Your task to perform on an android device: check battery use Image 0: 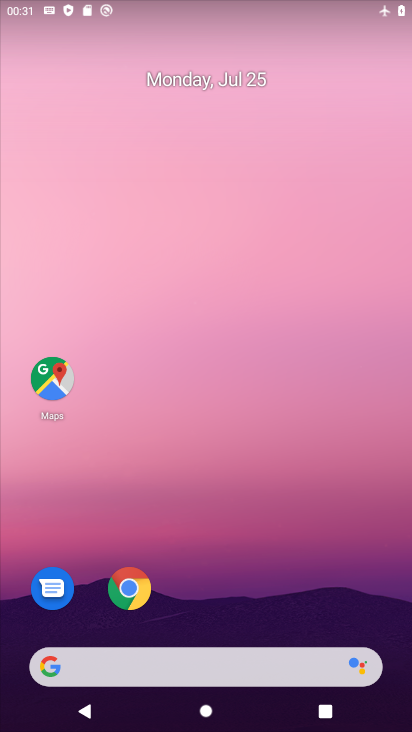
Step 0: drag from (240, 578) to (268, 352)
Your task to perform on an android device: check battery use Image 1: 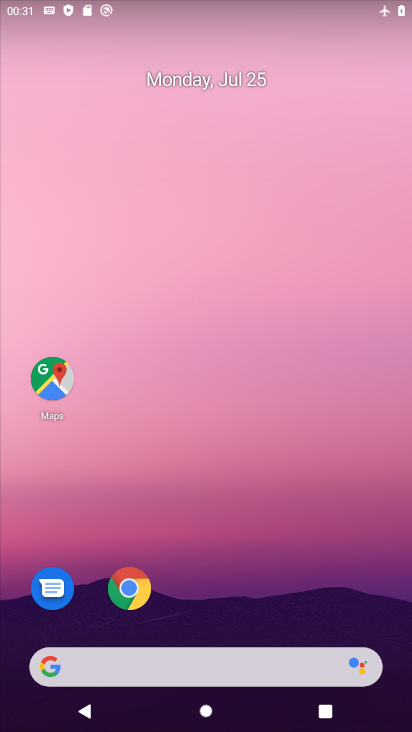
Step 1: drag from (204, 586) to (304, 2)
Your task to perform on an android device: check battery use Image 2: 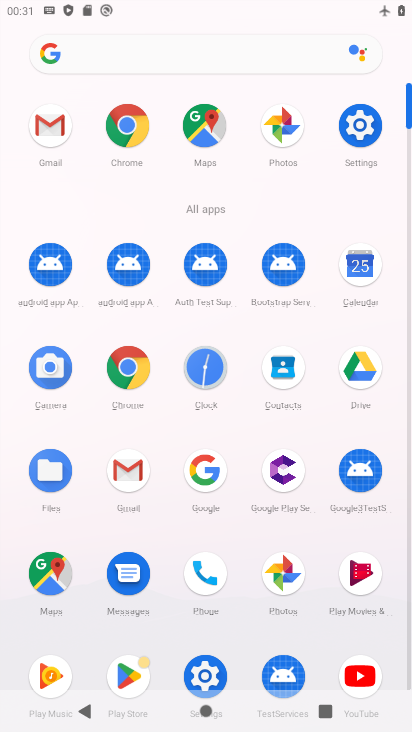
Step 2: click (369, 147)
Your task to perform on an android device: check battery use Image 3: 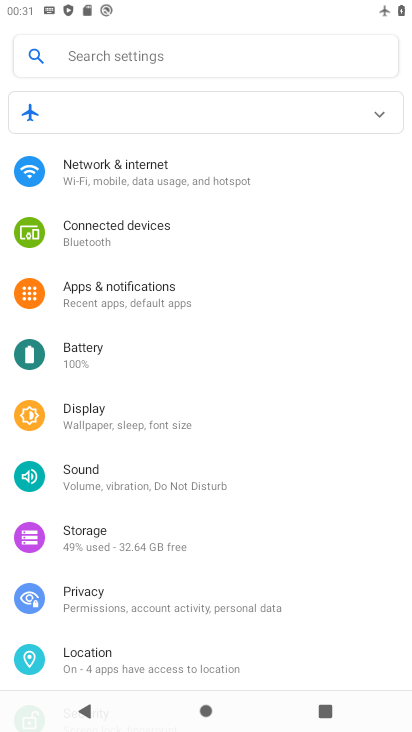
Step 3: click (89, 363)
Your task to perform on an android device: check battery use Image 4: 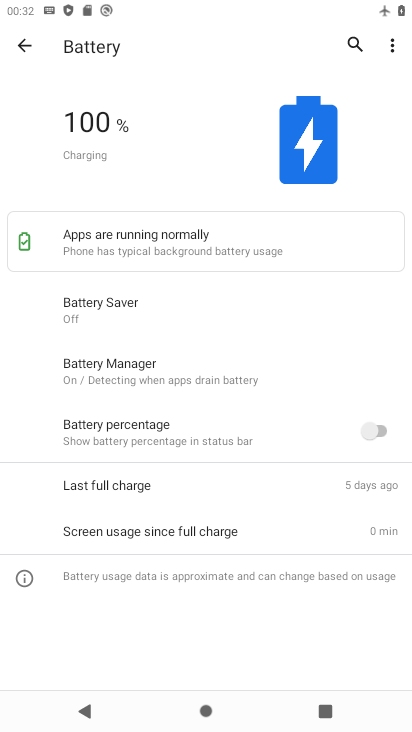
Step 4: click (396, 46)
Your task to perform on an android device: check battery use Image 5: 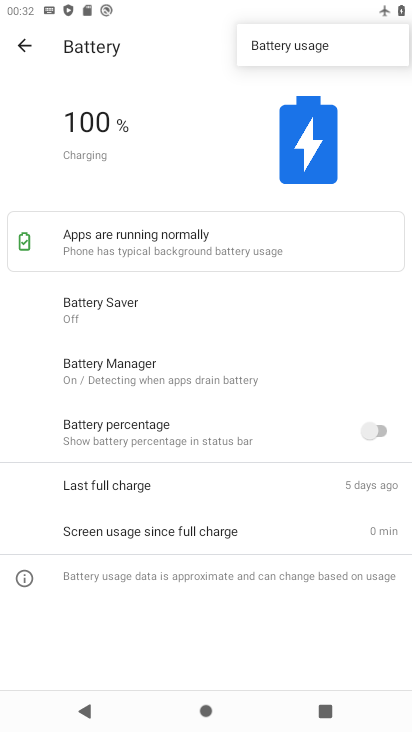
Step 5: click (316, 46)
Your task to perform on an android device: check battery use Image 6: 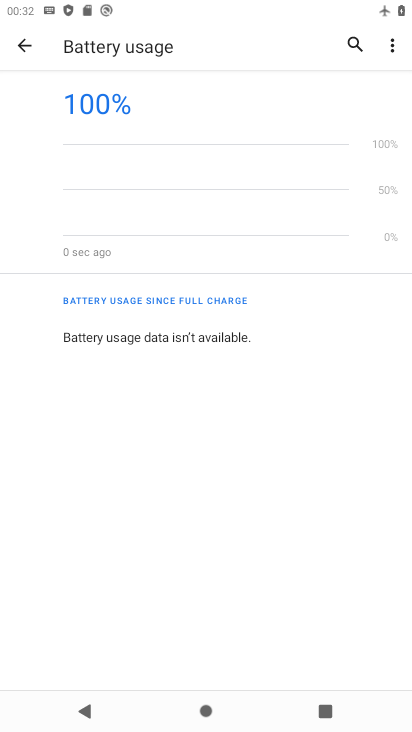
Step 6: task complete